Your task to perform on an android device: turn off smart reply in the gmail app Image 0: 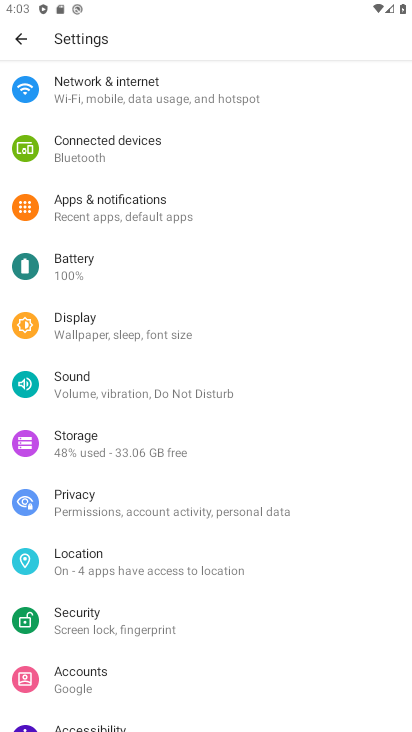
Step 0: press home button
Your task to perform on an android device: turn off smart reply in the gmail app Image 1: 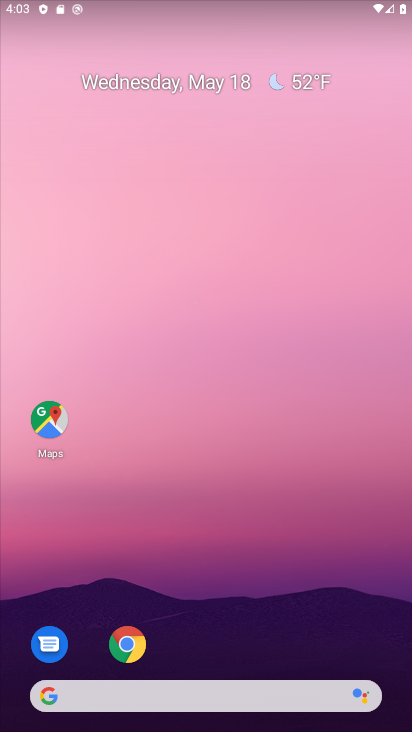
Step 1: drag from (217, 644) to (373, 38)
Your task to perform on an android device: turn off smart reply in the gmail app Image 2: 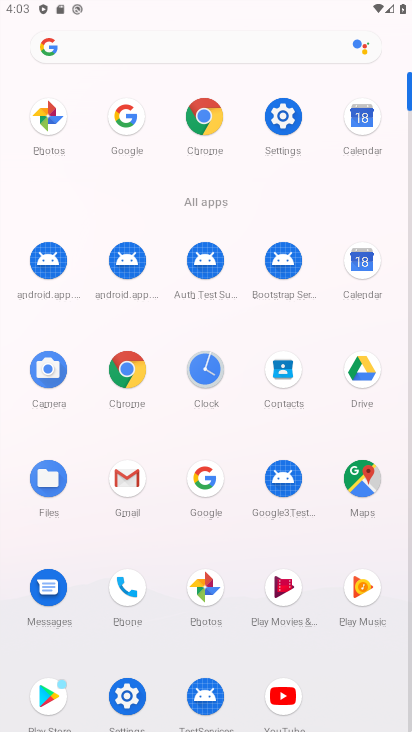
Step 2: click (117, 475)
Your task to perform on an android device: turn off smart reply in the gmail app Image 3: 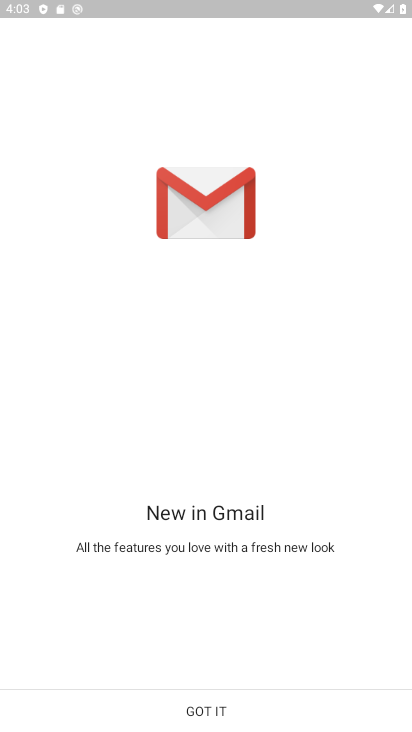
Step 3: click (209, 708)
Your task to perform on an android device: turn off smart reply in the gmail app Image 4: 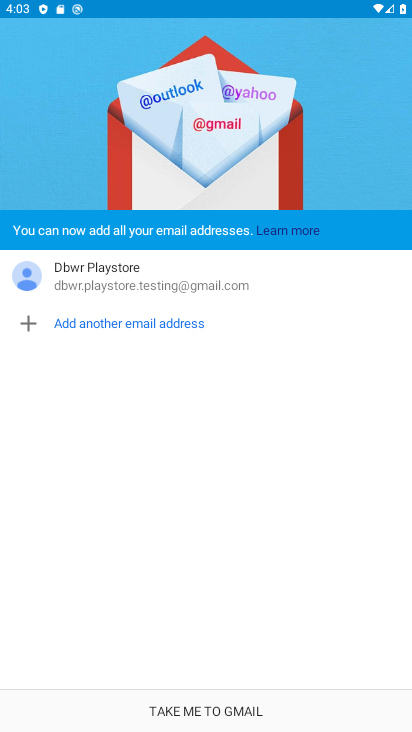
Step 4: click (194, 698)
Your task to perform on an android device: turn off smart reply in the gmail app Image 5: 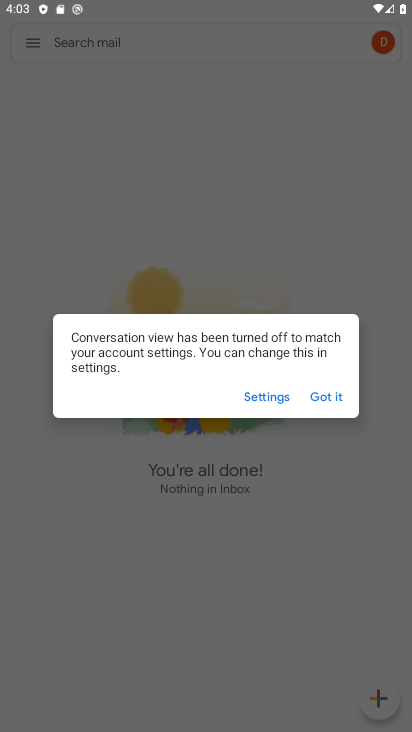
Step 5: click (317, 400)
Your task to perform on an android device: turn off smart reply in the gmail app Image 6: 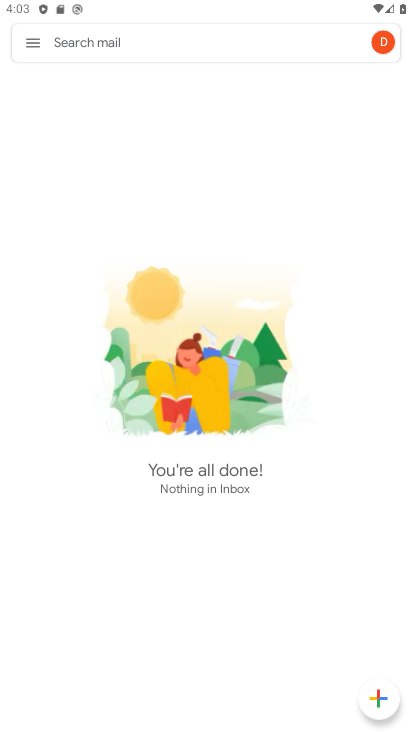
Step 6: click (24, 44)
Your task to perform on an android device: turn off smart reply in the gmail app Image 7: 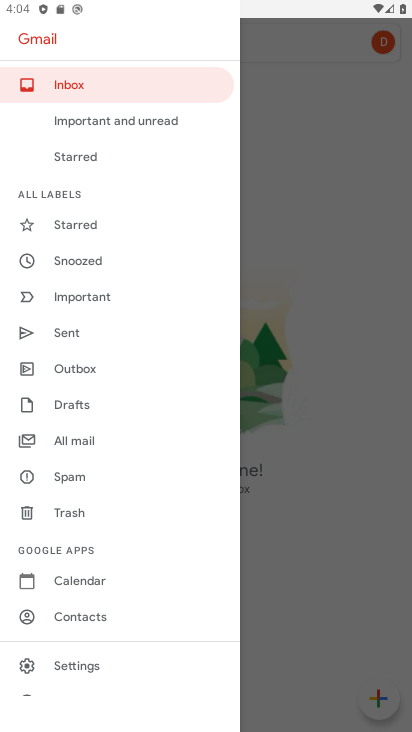
Step 7: click (81, 659)
Your task to perform on an android device: turn off smart reply in the gmail app Image 8: 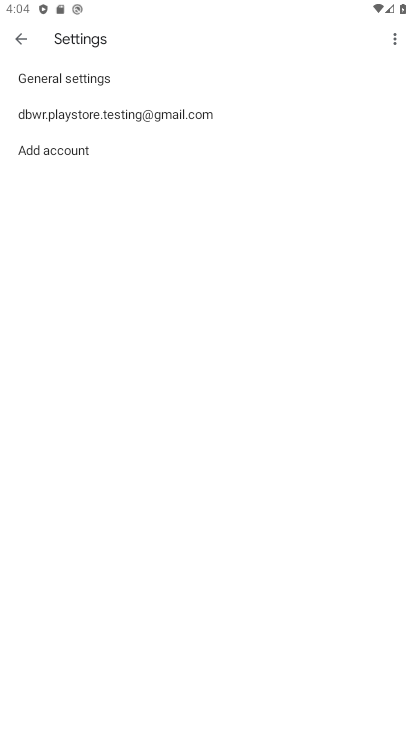
Step 8: click (56, 107)
Your task to perform on an android device: turn off smart reply in the gmail app Image 9: 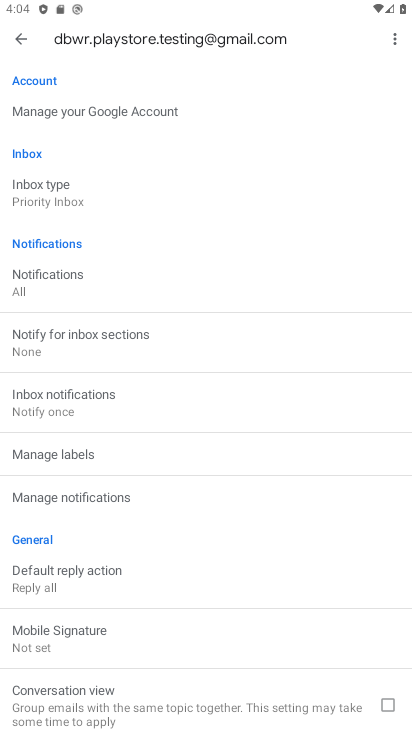
Step 9: drag from (126, 614) to (96, 223)
Your task to perform on an android device: turn off smart reply in the gmail app Image 10: 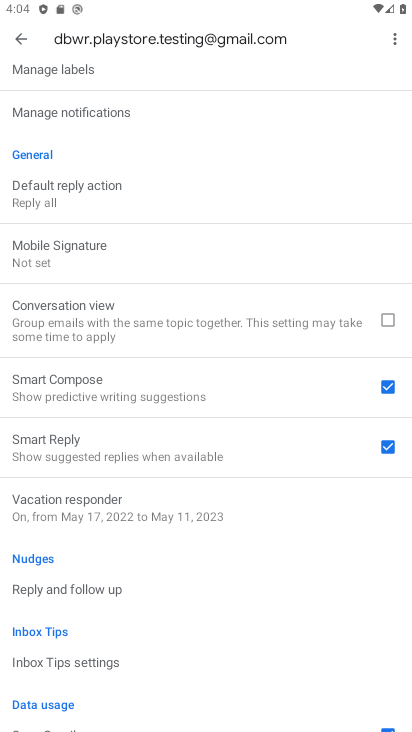
Step 10: click (385, 453)
Your task to perform on an android device: turn off smart reply in the gmail app Image 11: 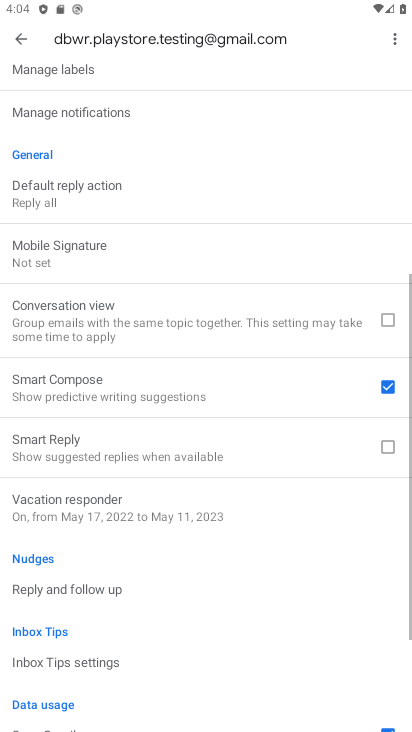
Step 11: task complete